Your task to perform on an android device: Open Youtube and go to the subscriptions tab Image 0: 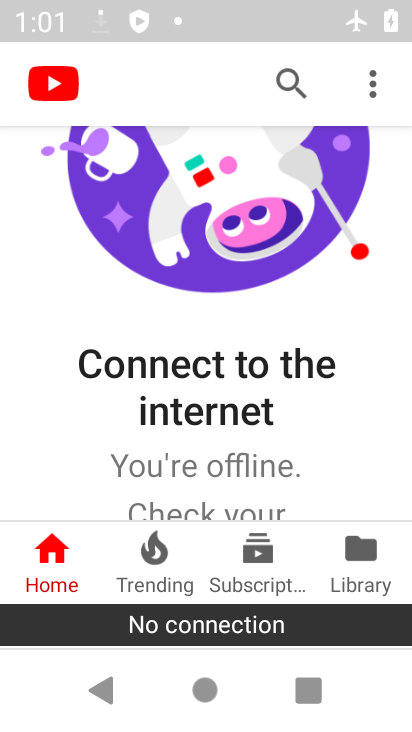
Step 0: click (251, 584)
Your task to perform on an android device: Open Youtube and go to the subscriptions tab Image 1: 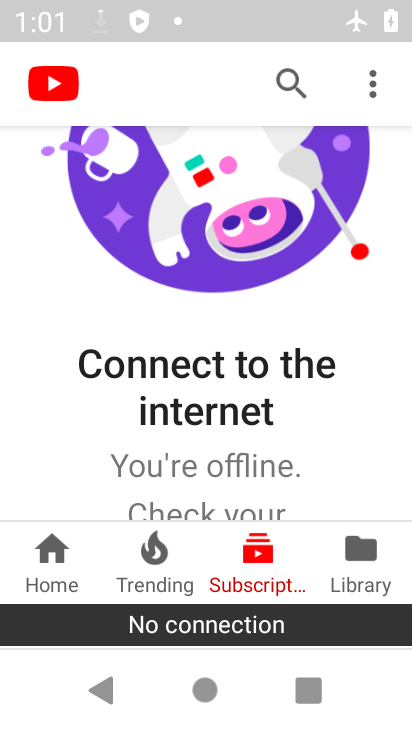
Step 1: task complete